Your task to perform on an android device: empty trash in the gmail app Image 0: 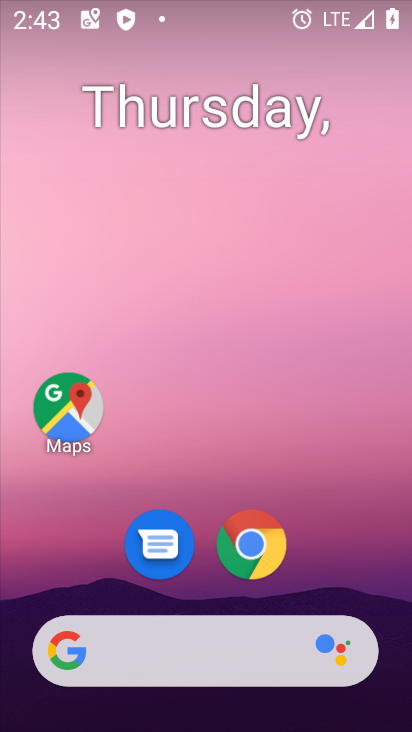
Step 0: drag from (358, 554) to (363, 188)
Your task to perform on an android device: empty trash in the gmail app Image 1: 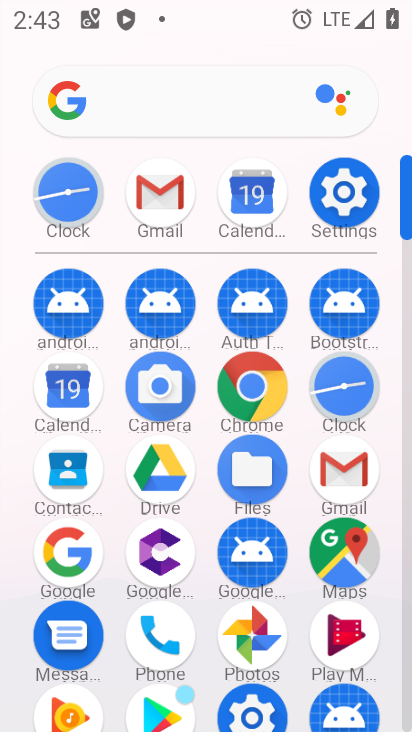
Step 1: click (166, 185)
Your task to perform on an android device: empty trash in the gmail app Image 2: 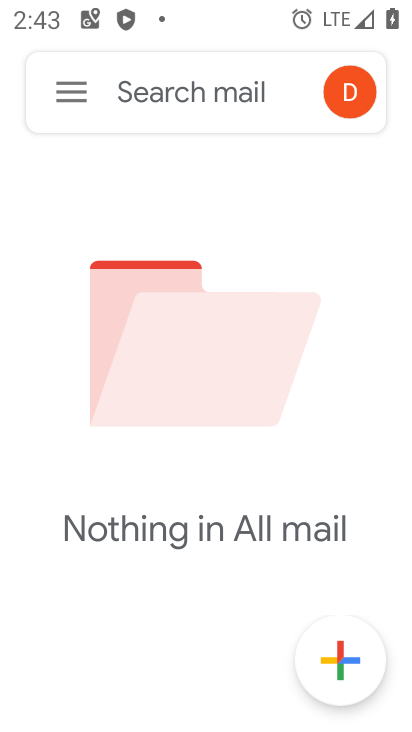
Step 2: click (74, 120)
Your task to perform on an android device: empty trash in the gmail app Image 3: 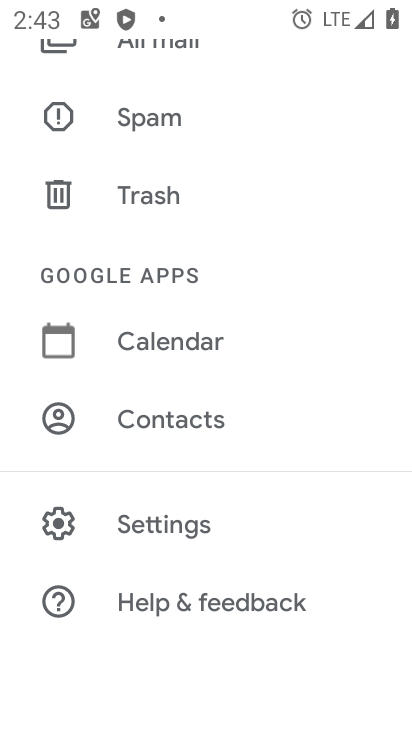
Step 3: click (184, 210)
Your task to perform on an android device: empty trash in the gmail app Image 4: 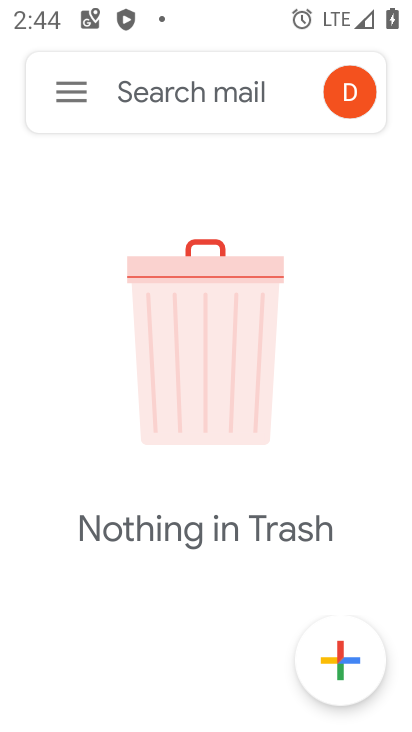
Step 4: task complete